Your task to perform on an android device: turn on translation in the chrome app Image 0: 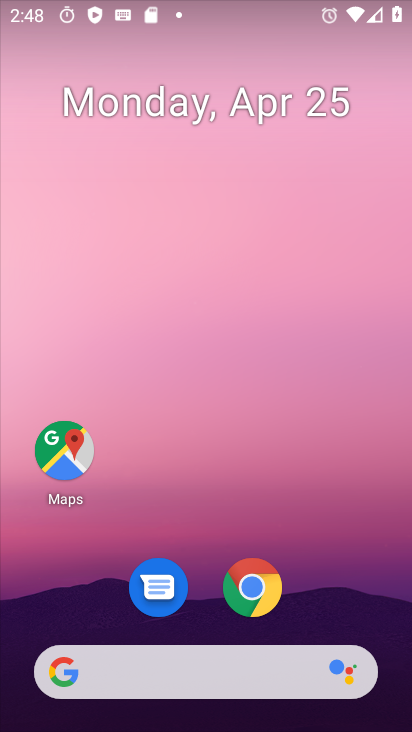
Step 0: drag from (340, 589) to (280, 113)
Your task to perform on an android device: turn on translation in the chrome app Image 1: 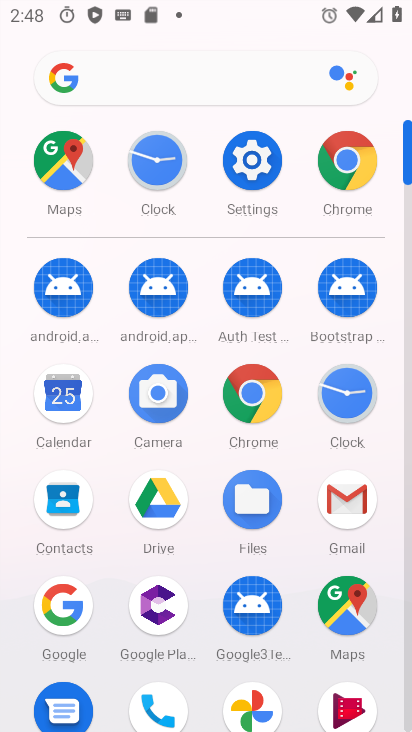
Step 1: click (248, 392)
Your task to perform on an android device: turn on translation in the chrome app Image 2: 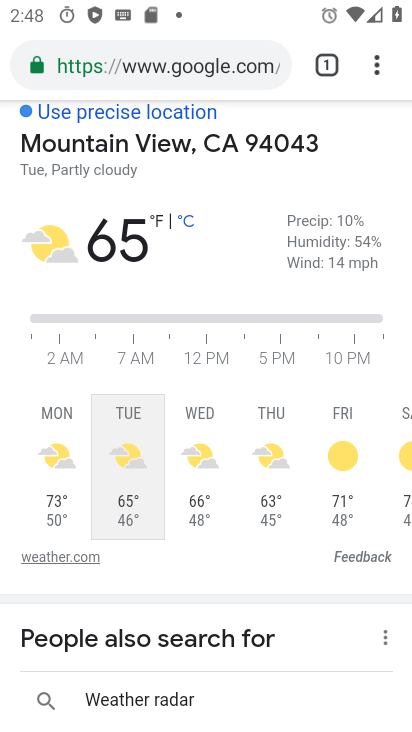
Step 2: drag from (380, 59) to (246, 647)
Your task to perform on an android device: turn on translation in the chrome app Image 3: 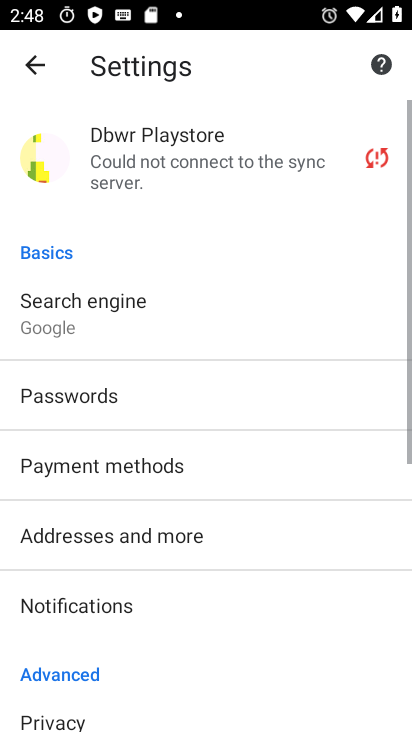
Step 3: drag from (231, 501) to (287, 84)
Your task to perform on an android device: turn on translation in the chrome app Image 4: 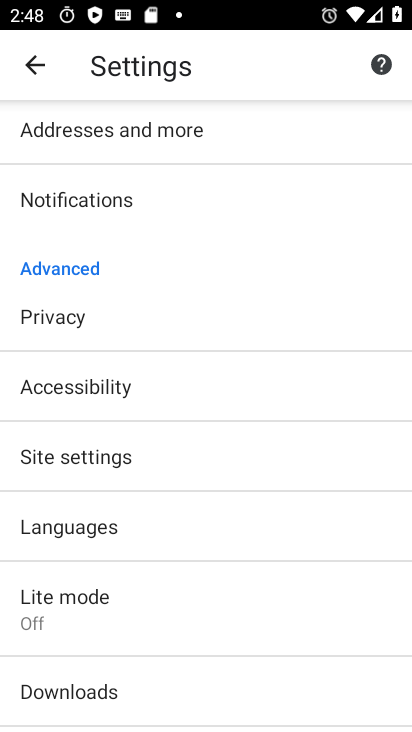
Step 4: click (92, 531)
Your task to perform on an android device: turn on translation in the chrome app Image 5: 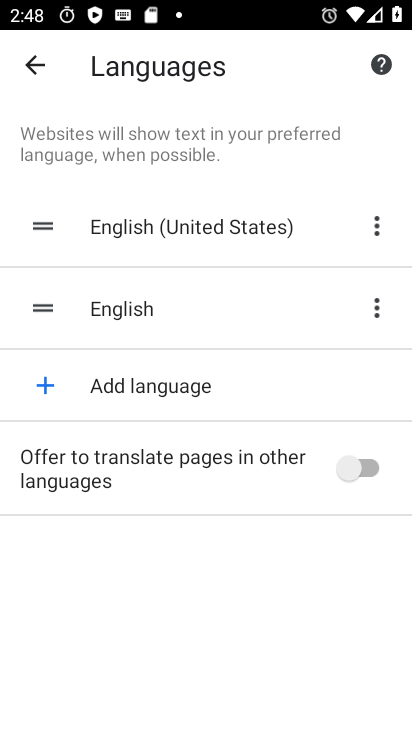
Step 5: click (344, 467)
Your task to perform on an android device: turn on translation in the chrome app Image 6: 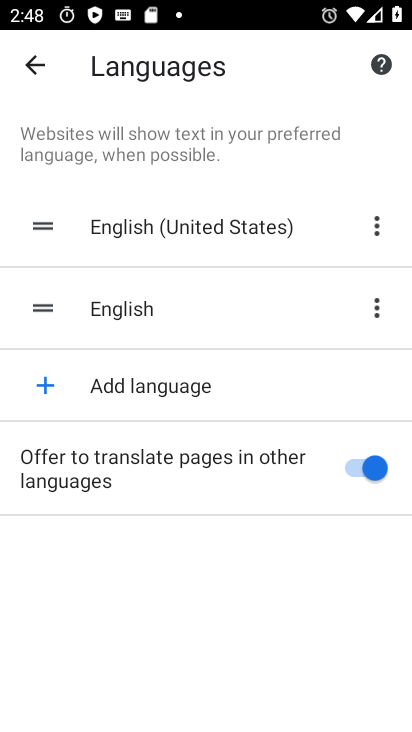
Step 6: task complete